Your task to perform on an android device: choose inbox layout in the gmail app Image 0: 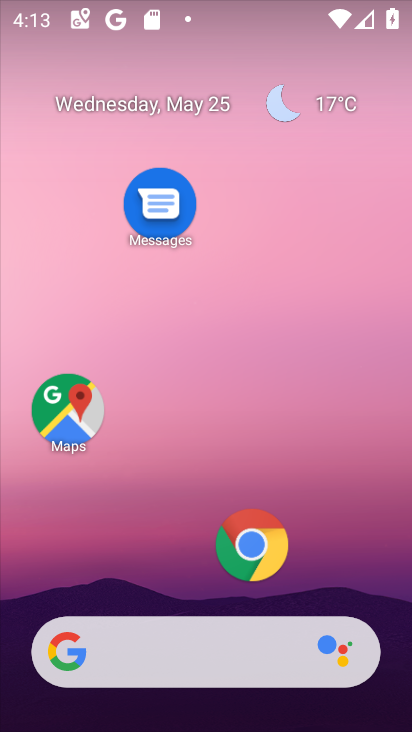
Step 0: drag from (172, 544) to (149, 74)
Your task to perform on an android device: choose inbox layout in the gmail app Image 1: 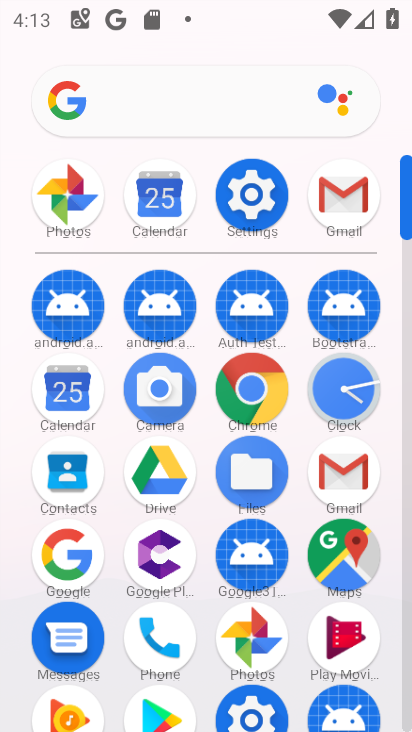
Step 1: click (351, 196)
Your task to perform on an android device: choose inbox layout in the gmail app Image 2: 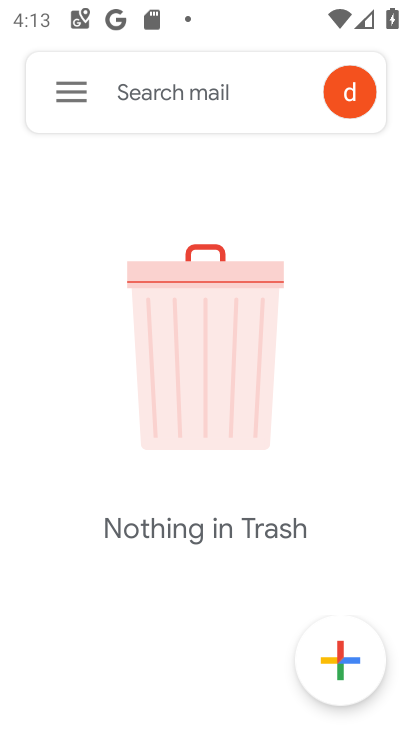
Step 2: click (74, 89)
Your task to perform on an android device: choose inbox layout in the gmail app Image 3: 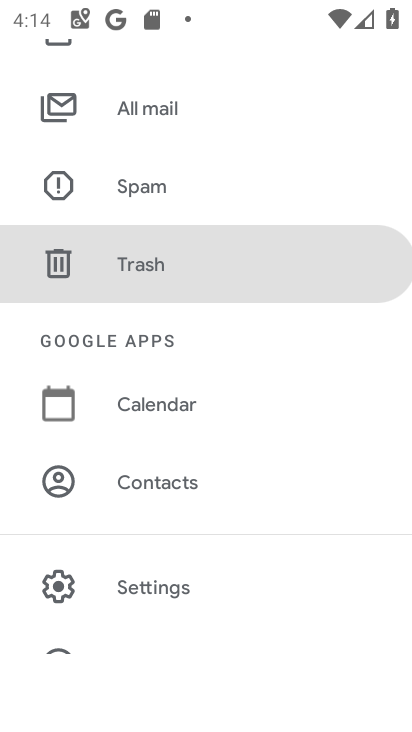
Step 3: click (173, 577)
Your task to perform on an android device: choose inbox layout in the gmail app Image 4: 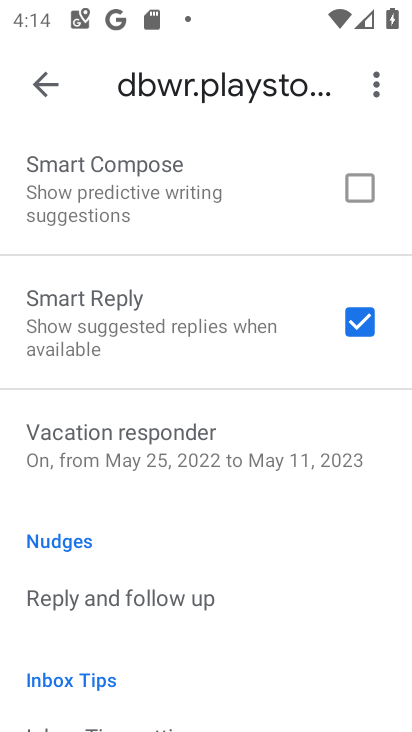
Step 4: drag from (220, 187) to (233, 588)
Your task to perform on an android device: choose inbox layout in the gmail app Image 5: 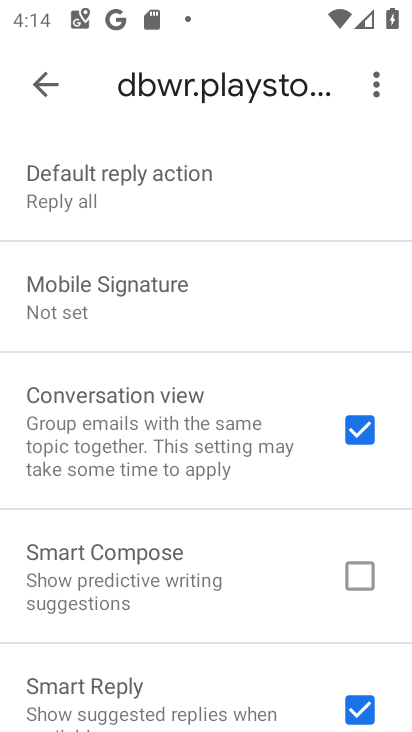
Step 5: drag from (233, 201) to (241, 646)
Your task to perform on an android device: choose inbox layout in the gmail app Image 6: 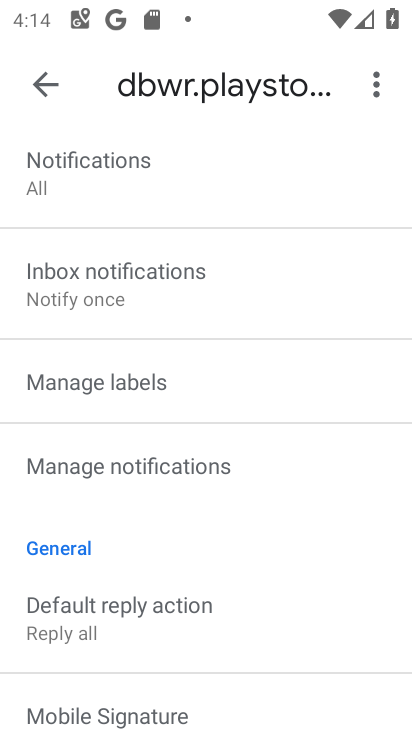
Step 6: drag from (239, 254) to (295, 606)
Your task to perform on an android device: choose inbox layout in the gmail app Image 7: 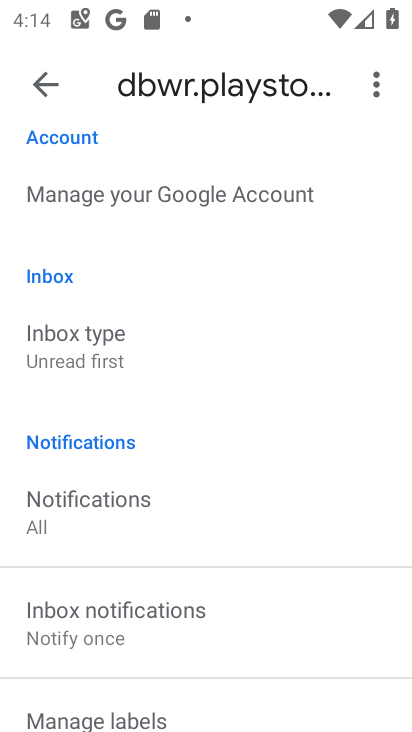
Step 7: click (90, 341)
Your task to perform on an android device: choose inbox layout in the gmail app Image 8: 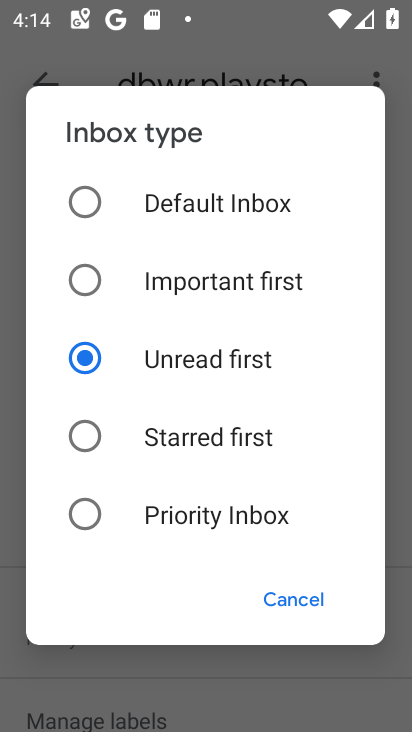
Step 8: click (81, 509)
Your task to perform on an android device: choose inbox layout in the gmail app Image 9: 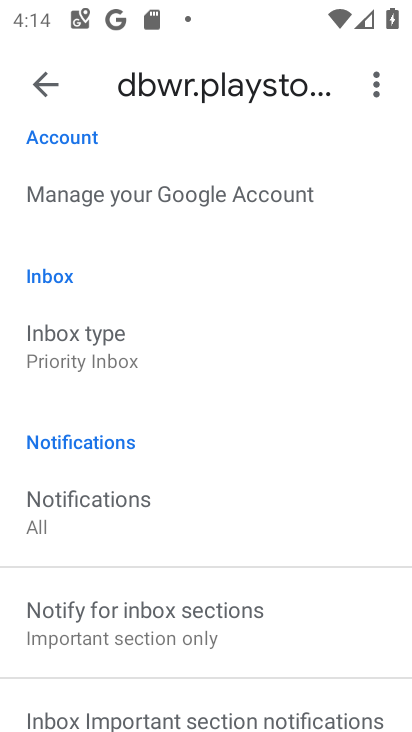
Step 9: task complete